Your task to perform on an android device: Go to internet settings Image 0: 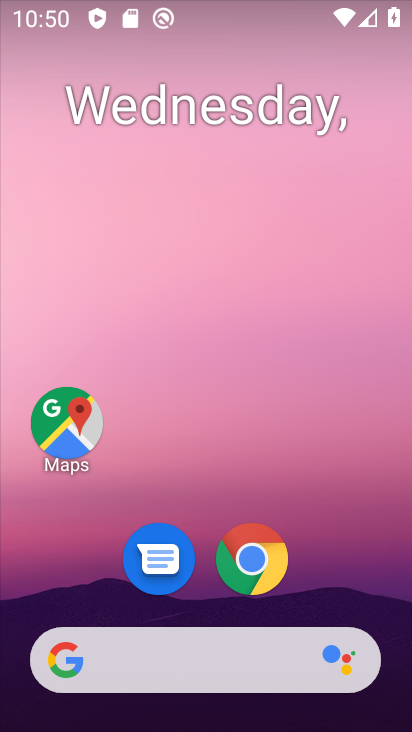
Step 0: drag from (387, 580) to (267, 40)
Your task to perform on an android device: Go to internet settings Image 1: 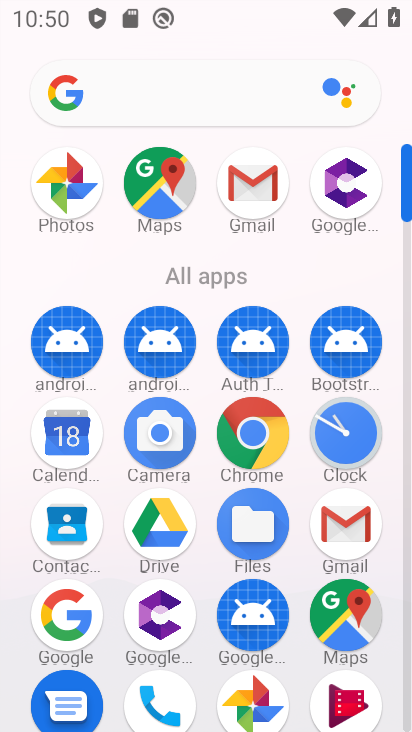
Step 1: click (410, 669)
Your task to perform on an android device: Go to internet settings Image 2: 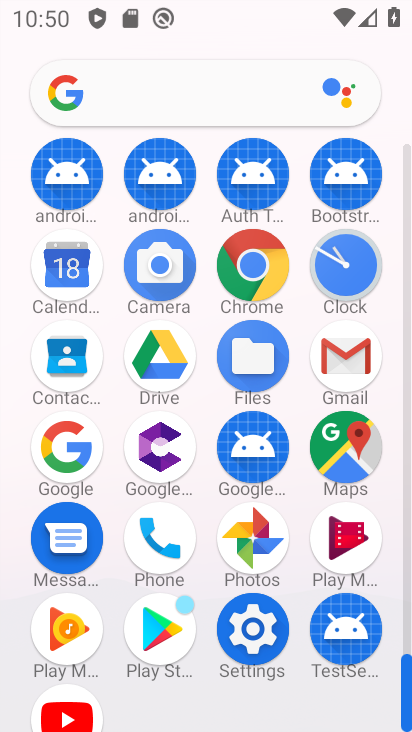
Step 2: click (260, 629)
Your task to perform on an android device: Go to internet settings Image 3: 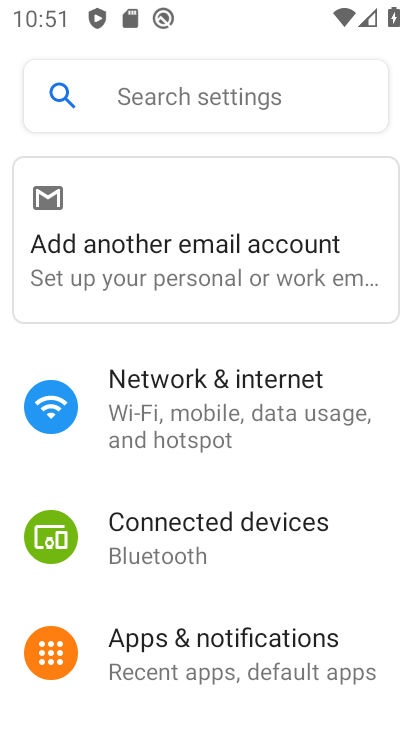
Step 3: click (265, 411)
Your task to perform on an android device: Go to internet settings Image 4: 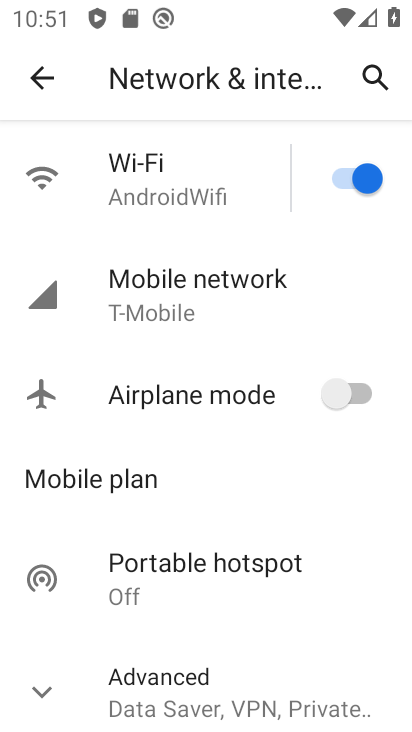
Step 4: task complete